Your task to perform on an android device: Go to location settings Image 0: 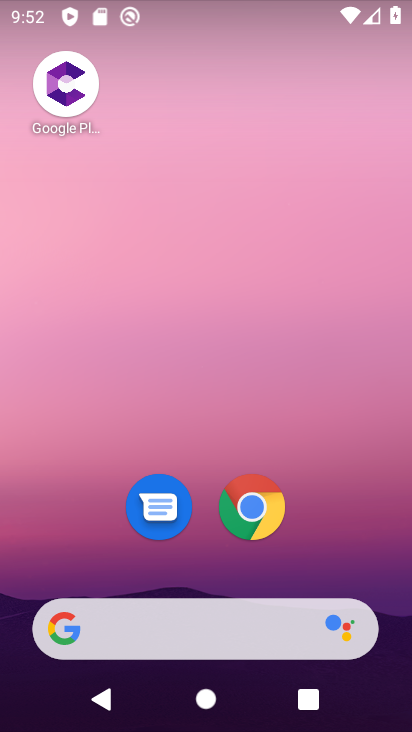
Step 0: drag from (390, 612) to (389, 352)
Your task to perform on an android device: Go to location settings Image 1: 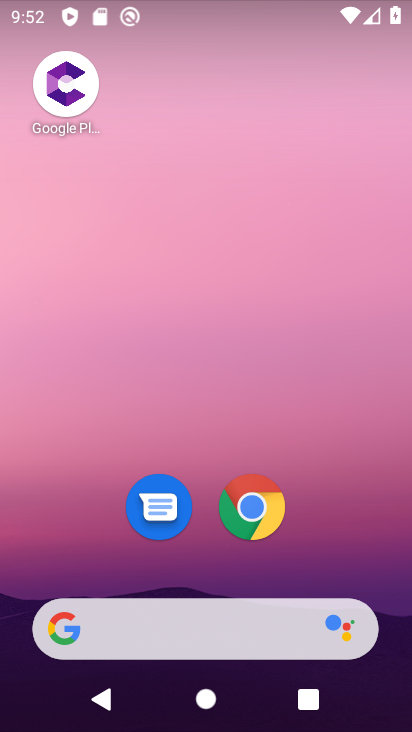
Step 1: drag from (397, 351) to (385, 215)
Your task to perform on an android device: Go to location settings Image 2: 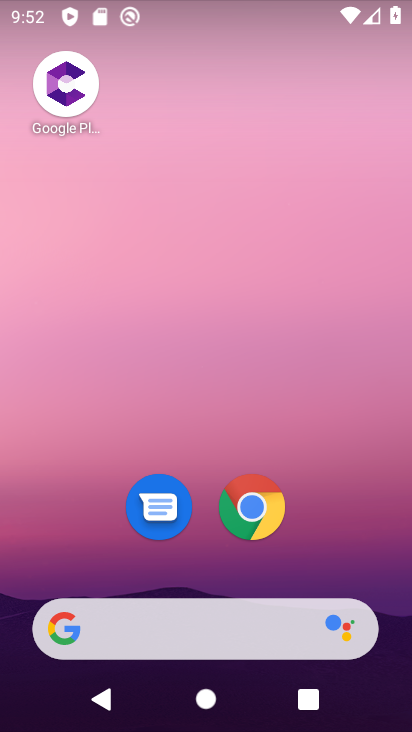
Step 2: drag from (394, 665) to (390, 183)
Your task to perform on an android device: Go to location settings Image 3: 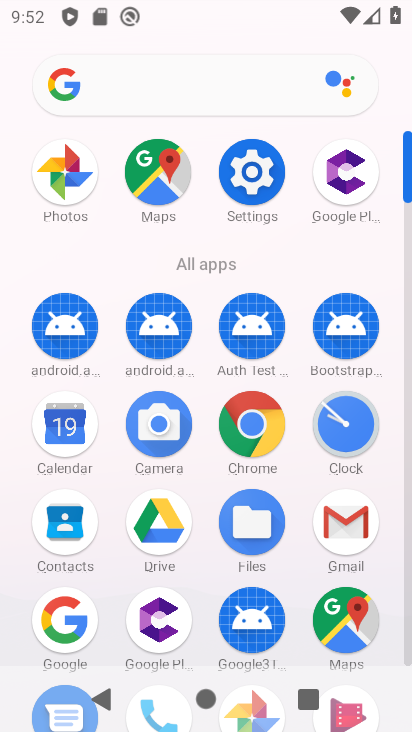
Step 3: click (249, 174)
Your task to perform on an android device: Go to location settings Image 4: 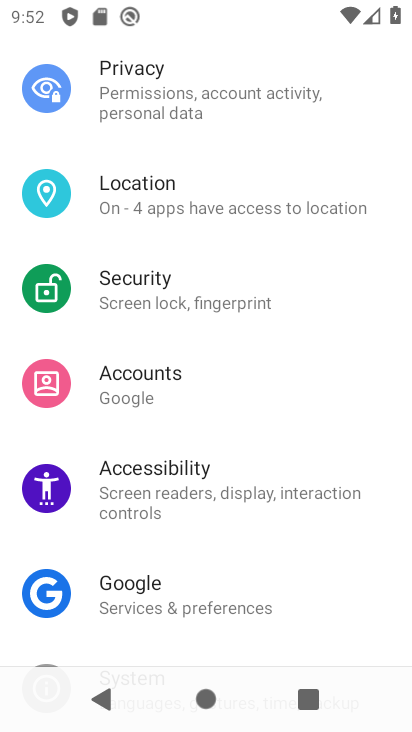
Step 4: click (145, 189)
Your task to perform on an android device: Go to location settings Image 5: 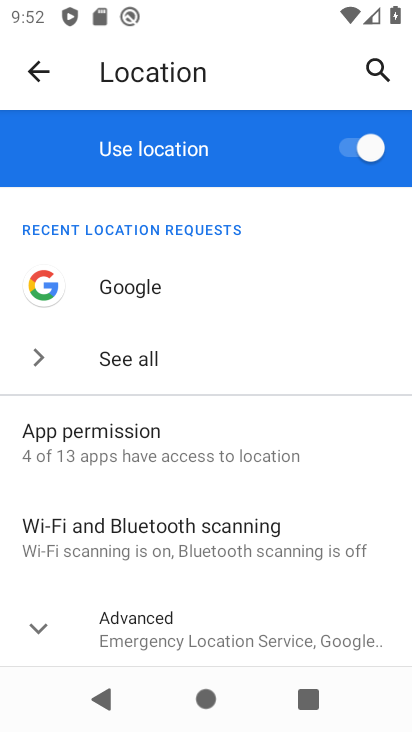
Step 5: task complete